Your task to perform on an android device: Show me recent news Image 0: 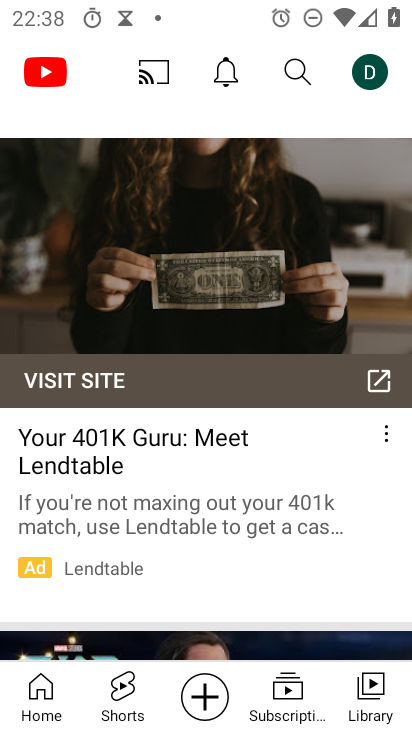
Step 0: press home button
Your task to perform on an android device: Show me recent news Image 1: 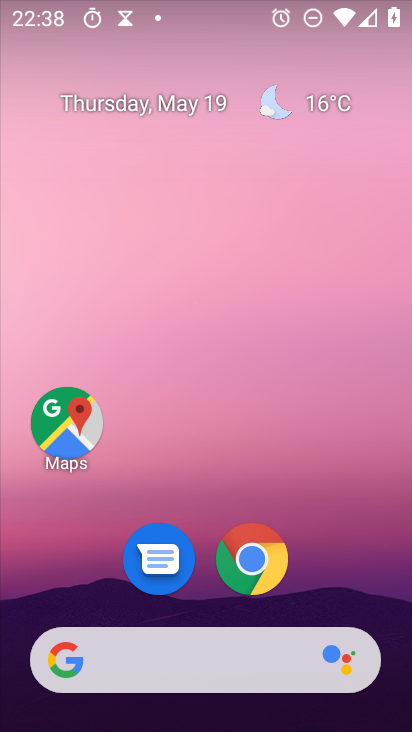
Step 1: task complete